Your task to perform on an android device: Open settings on Google Maps Image 0: 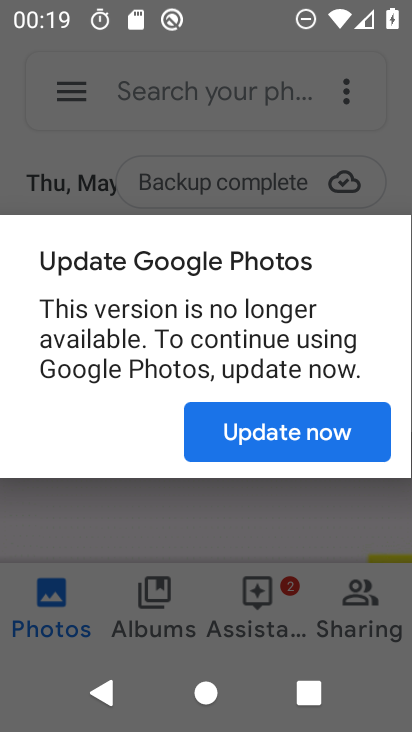
Step 0: press home button
Your task to perform on an android device: Open settings on Google Maps Image 1: 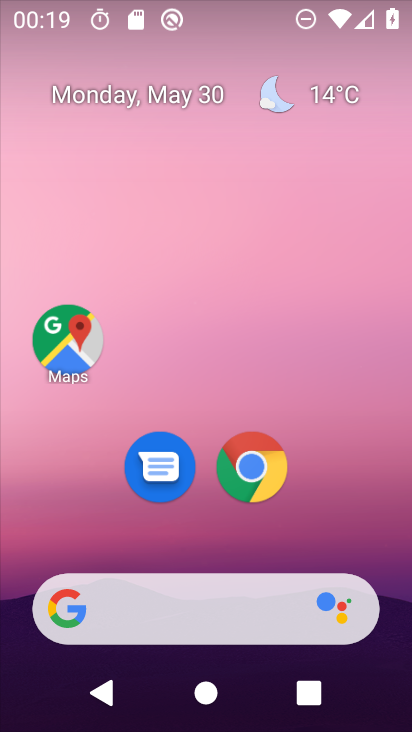
Step 1: click (78, 346)
Your task to perform on an android device: Open settings on Google Maps Image 2: 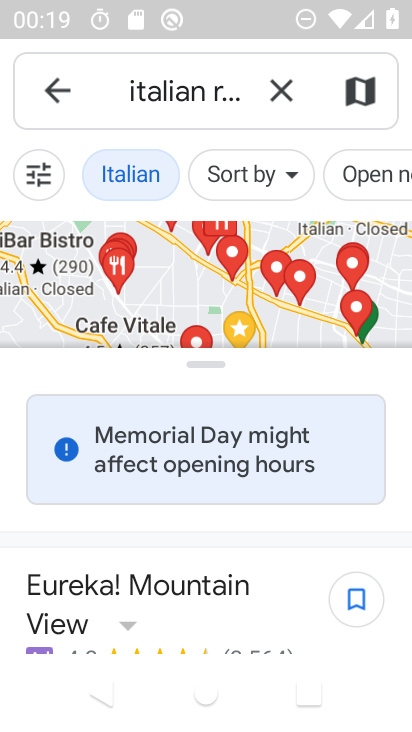
Step 2: click (54, 90)
Your task to perform on an android device: Open settings on Google Maps Image 3: 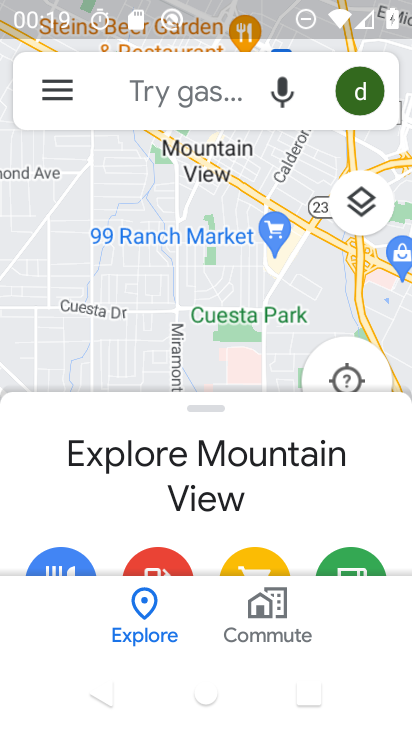
Step 3: click (54, 90)
Your task to perform on an android device: Open settings on Google Maps Image 4: 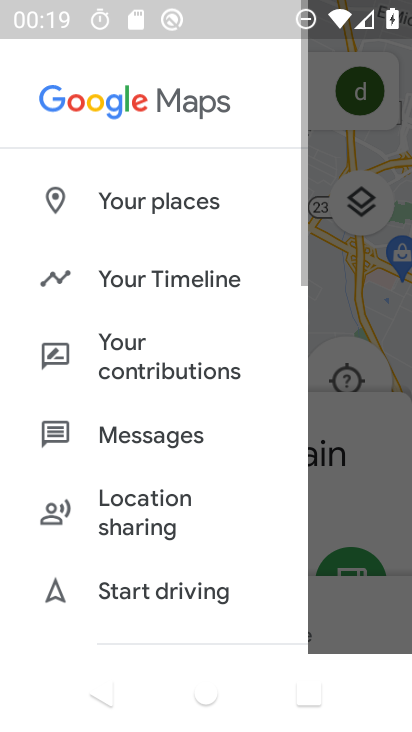
Step 4: drag from (114, 515) to (159, 128)
Your task to perform on an android device: Open settings on Google Maps Image 5: 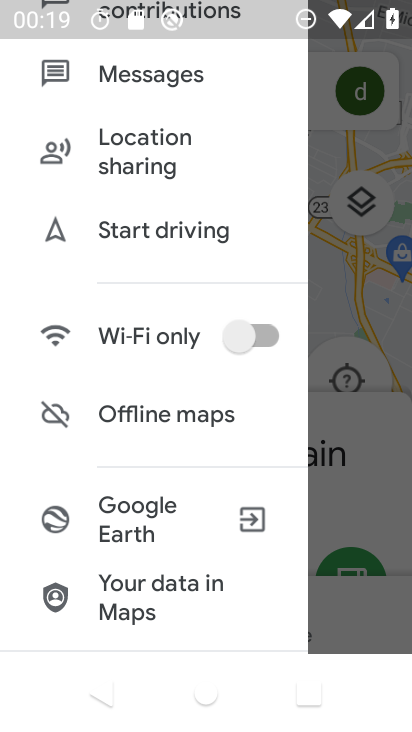
Step 5: drag from (124, 489) to (152, 142)
Your task to perform on an android device: Open settings on Google Maps Image 6: 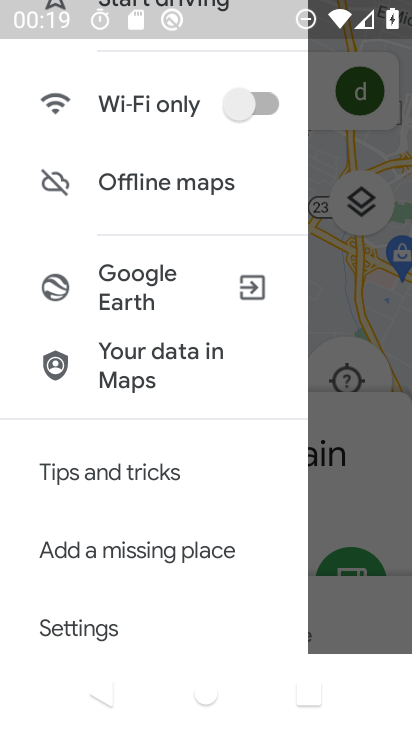
Step 6: drag from (143, 561) to (154, 285)
Your task to perform on an android device: Open settings on Google Maps Image 7: 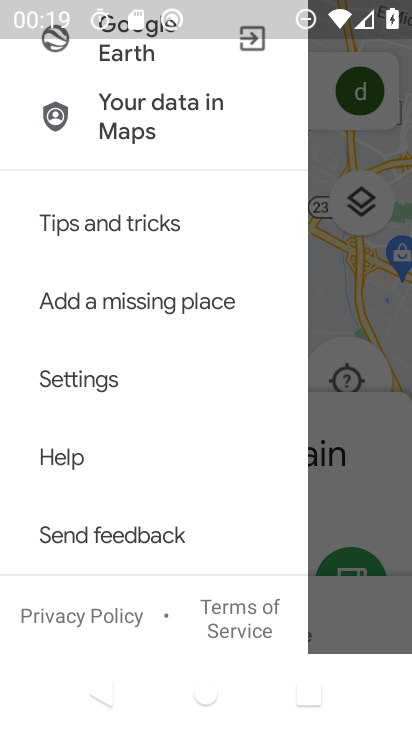
Step 7: click (86, 389)
Your task to perform on an android device: Open settings on Google Maps Image 8: 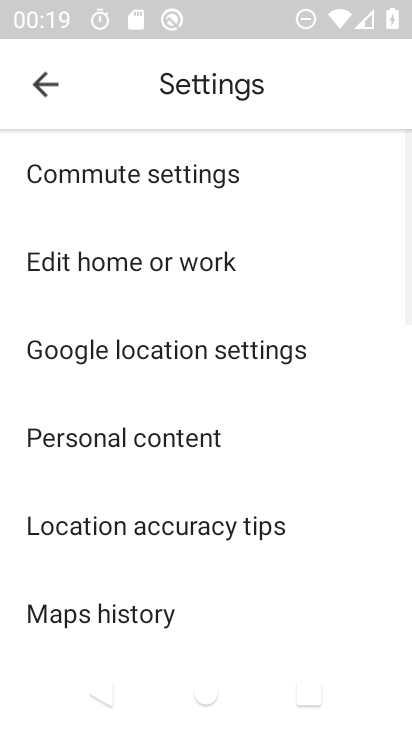
Step 8: task complete